Your task to perform on an android device: turn on javascript in the chrome app Image 0: 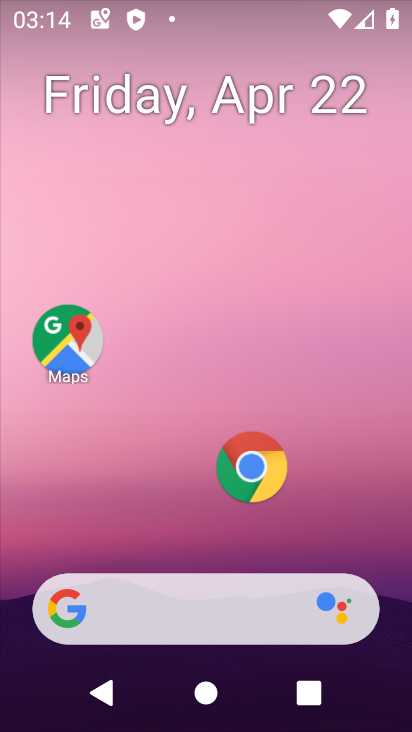
Step 0: click (259, 470)
Your task to perform on an android device: turn on javascript in the chrome app Image 1: 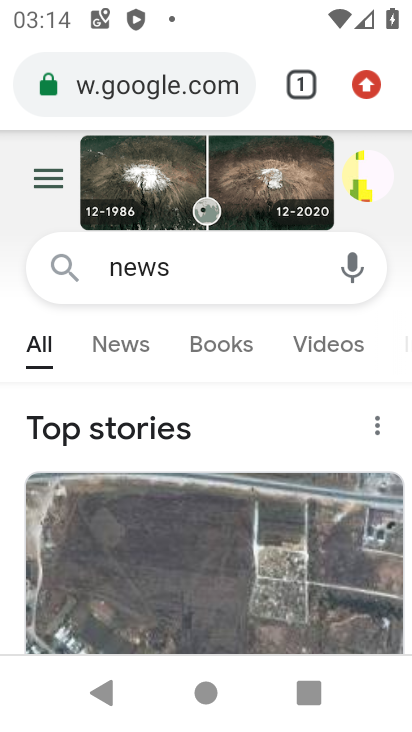
Step 1: click (369, 80)
Your task to perform on an android device: turn on javascript in the chrome app Image 2: 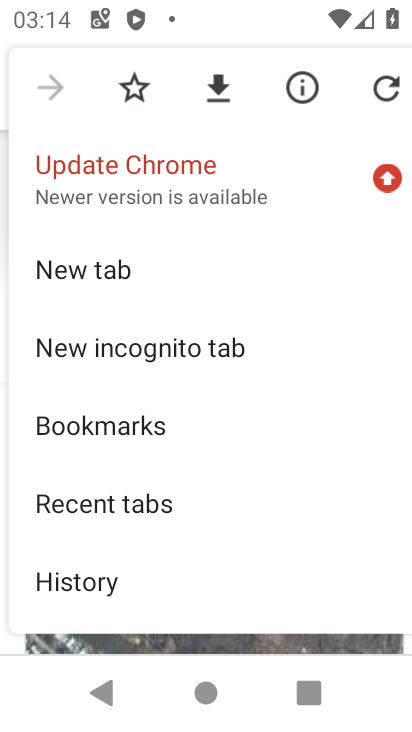
Step 2: drag from (147, 507) to (189, 144)
Your task to perform on an android device: turn on javascript in the chrome app Image 3: 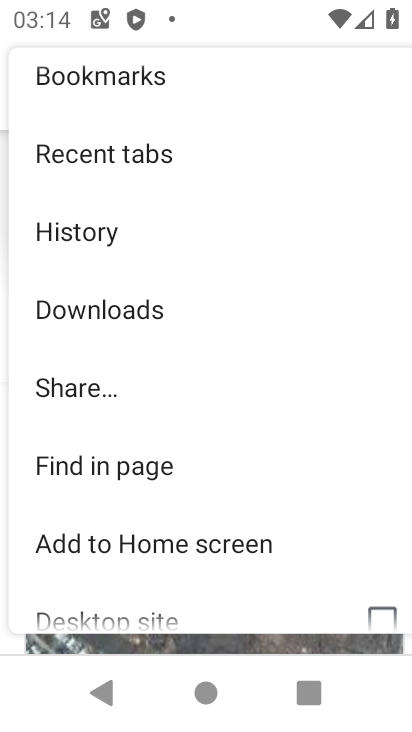
Step 3: drag from (132, 578) to (178, 179)
Your task to perform on an android device: turn on javascript in the chrome app Image 4: 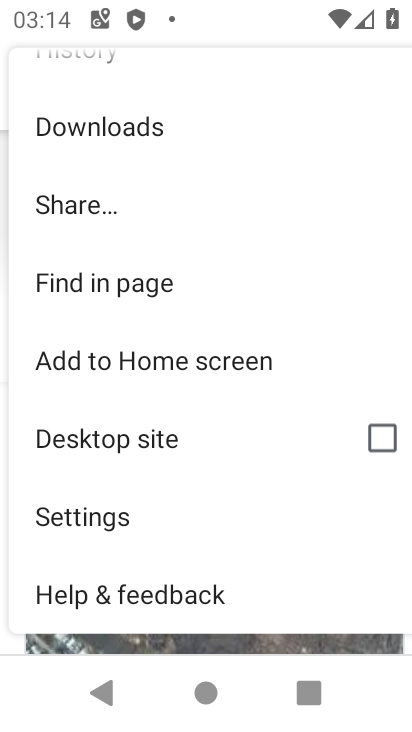
Step 4: click (94, 507)
Your task to perform on an android device: turn on javascript in the chrome app Image 5: 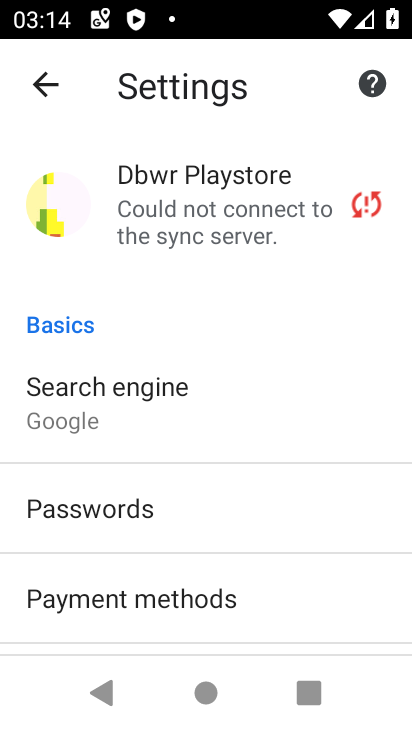
Step 5: drag from (191, 599) to (246, 300)
Your task to perform on an android device: turn on javascript in the chrome app Image 6: 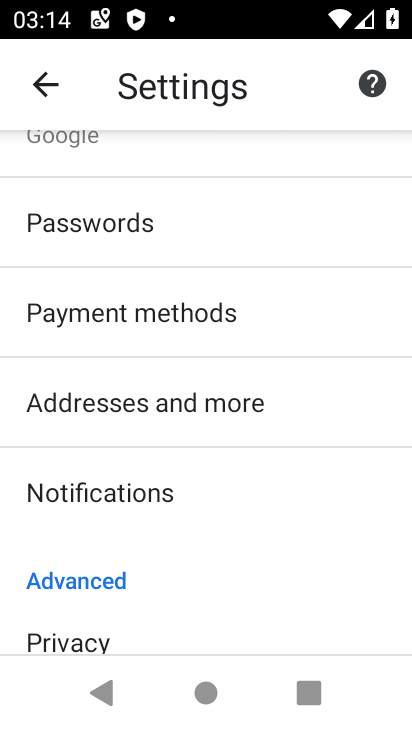
Step 6: drag from (173, 532) to (242, 296)
Your task to perform on an android device: turn on javascript in the chrome app Image 7: 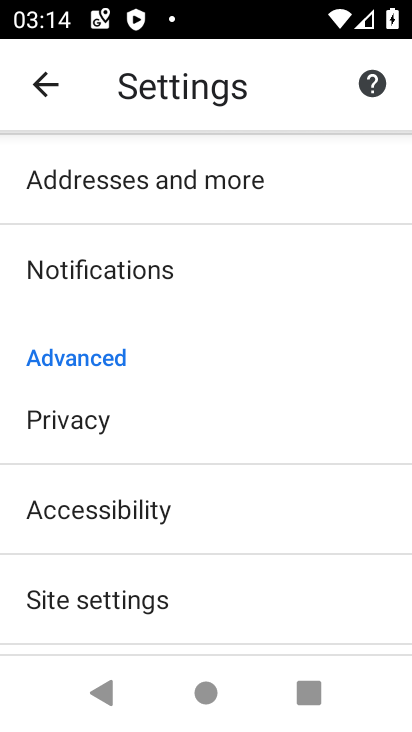
Step 7: click (146, 587)
Your task to perform on an android device: turn on javascript in the chrome app Image 8: 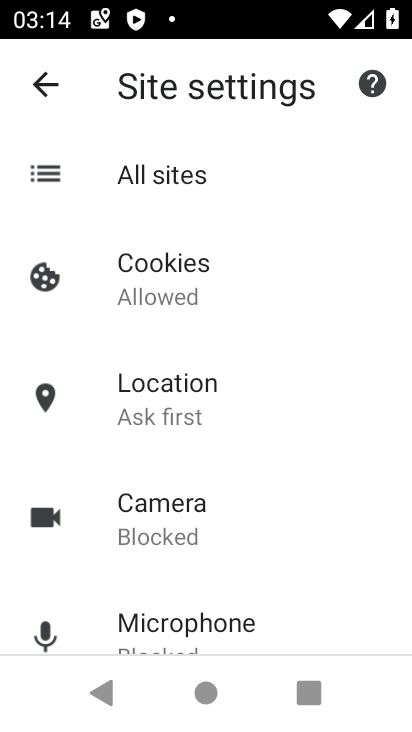
Step 8: drag from (220, 553) to (236, 242)
Your task to perform on an android device: turn on javascript in the chrome app Image 9: 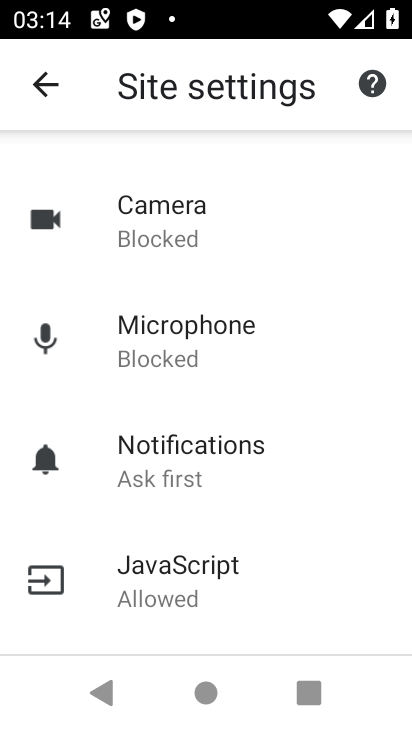
Step 9: click (159, 571)
Your task to perform on an android device: turn on javascript in the chrome app Image 10: 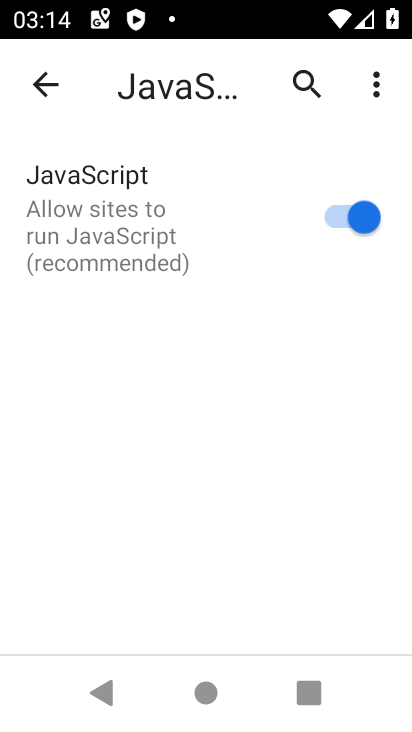
Step 10: task complete